Your task to perform on an android device: empty trash in google photos Image 0: 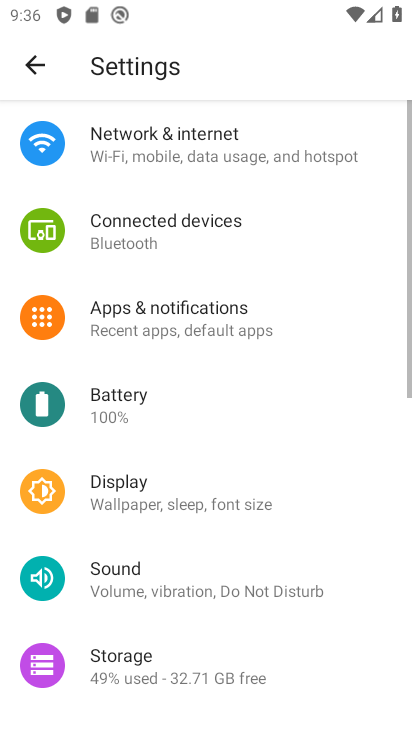
Step 0: press back button
Your task to perform on an android device: empty trash in google photos Image 1: 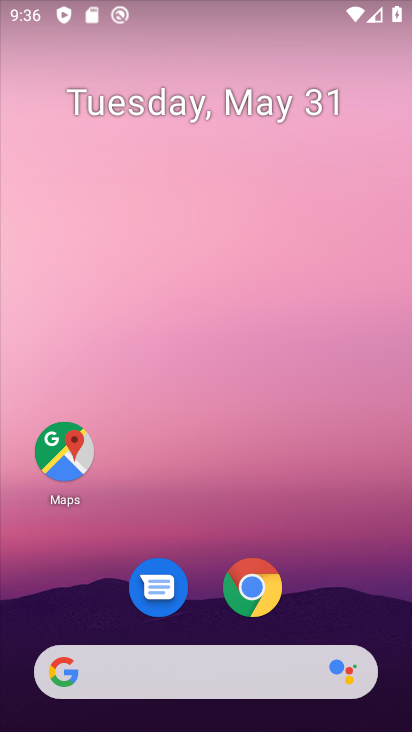
Step 1: drag from (243, 708) to (125, 277)
Your task to perform on an android device: empty trash in google photos Image 2: 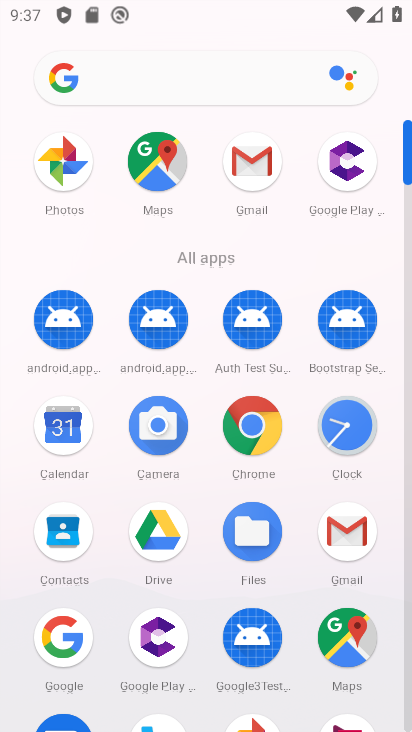
Step 2: drag from (224, 574) to (203, 206)
Your task to perform on an android device: empty trash in google photos Image 3: 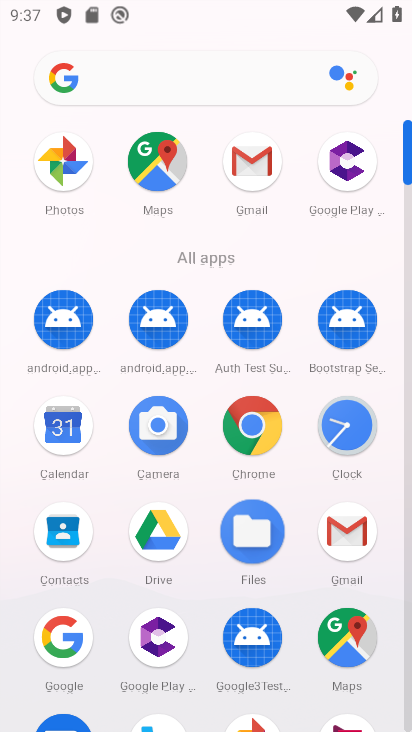
Step 3: drag from (188, 530) to (169, 175)
Your task to perform on an android device: empty trash in google photos Image 4: 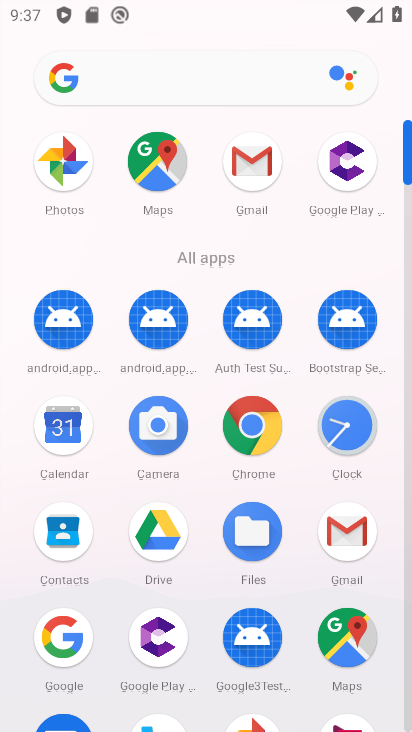
Step 4: drag from (206, 463) to (186, 44)
Your task to perform on an android device: empty trash in google photos Image 5: 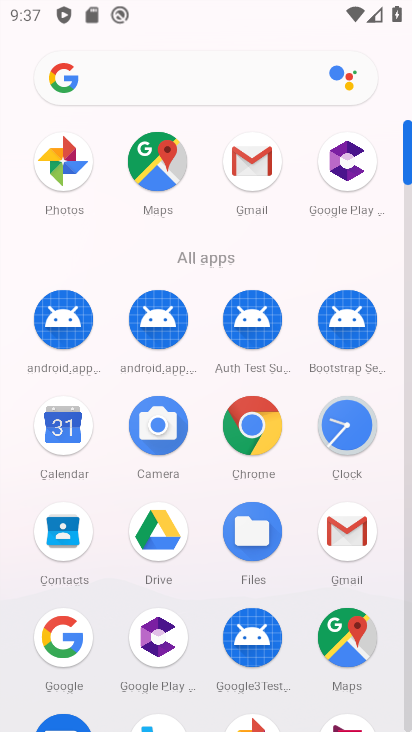
Step 5: drag from (226, 517) to (184, 0)
Your task to perform on an android device: empty trash in google photos Image 6: 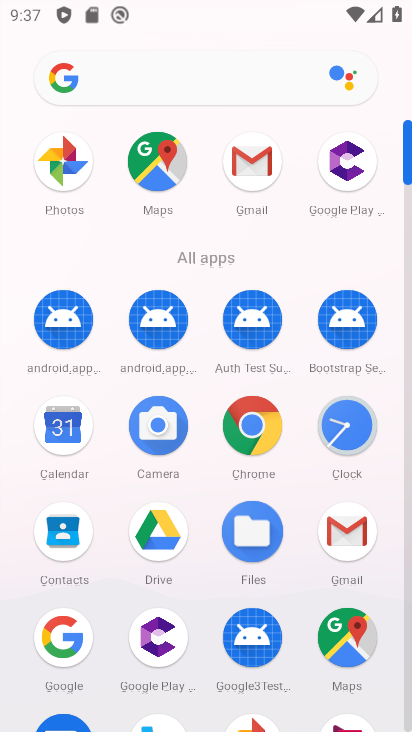
Step 6: drag from (229, 270) to (244, 32)
Your task to perform on an android device: empty trash in google photos Image 7: 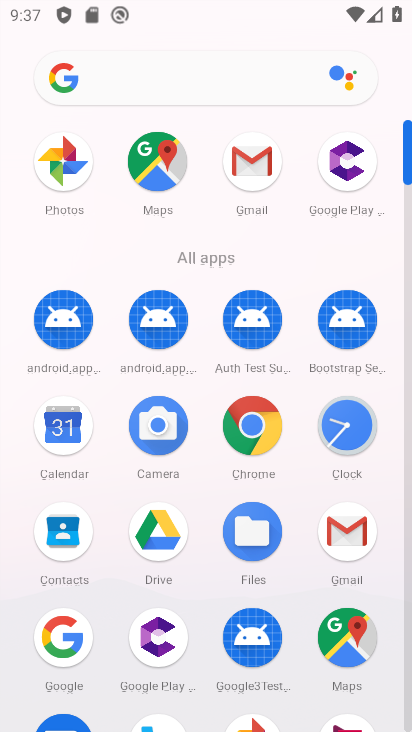
Step 7: drag from (255, 510) to (232, 252)
Your task to perform on an android device: empty trash in google photos Image 8: 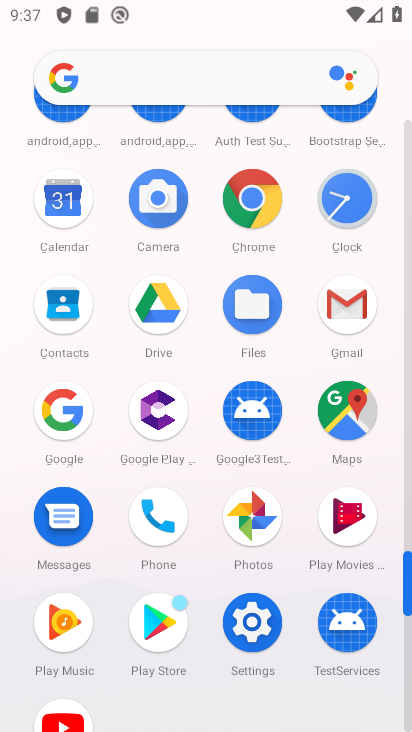
Step 8: click (257, 521)
Your task to perform on an android device: empty trash in google photos Image 9: 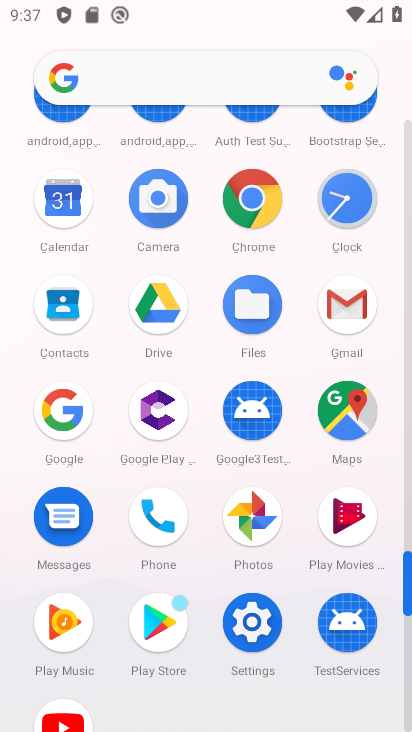
Step 9: click (257, 521)
Your task to perform on an android device: empty trash in google photos Image 10: 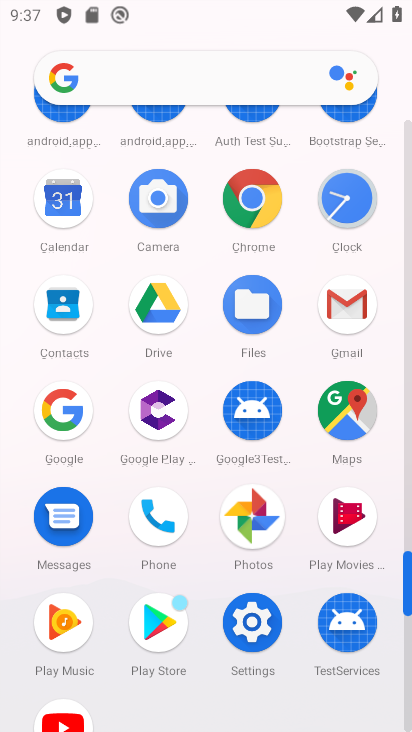
Step 10: click (257, 521)
Your task to perform on an android device: empty trash in google photos Image 11: 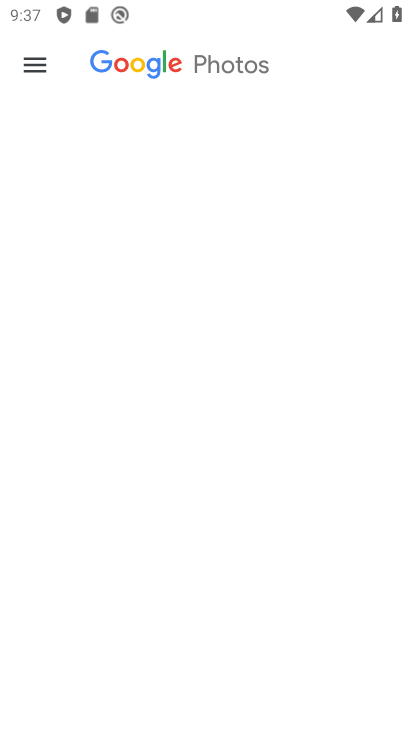
Step 11: click (257, 521)
Your task to perform on an android device: empty trash in google photos Image 12: 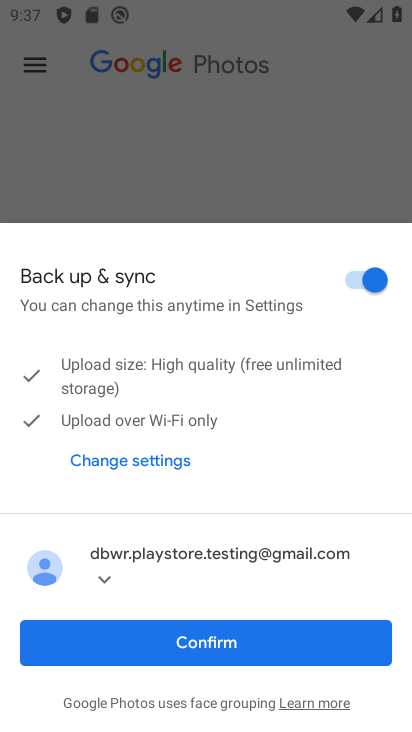
Step 12: click (199, 645)
Your task to perform on an android device: empty trash in google photos Image 13: 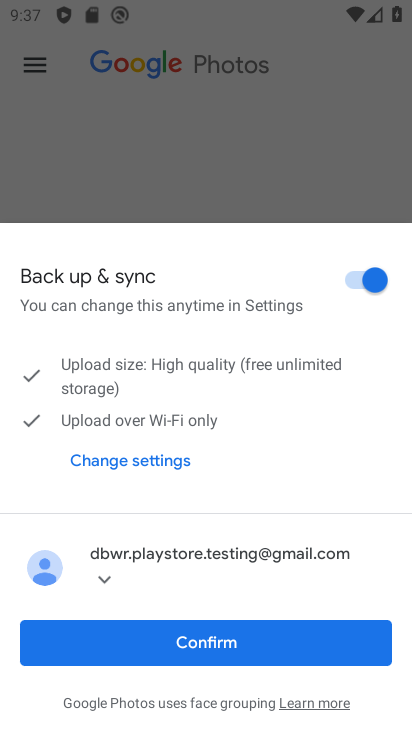
Step 13: click (203, 643)
Your task to perform on an android device: empty trash in google photos Image 14: 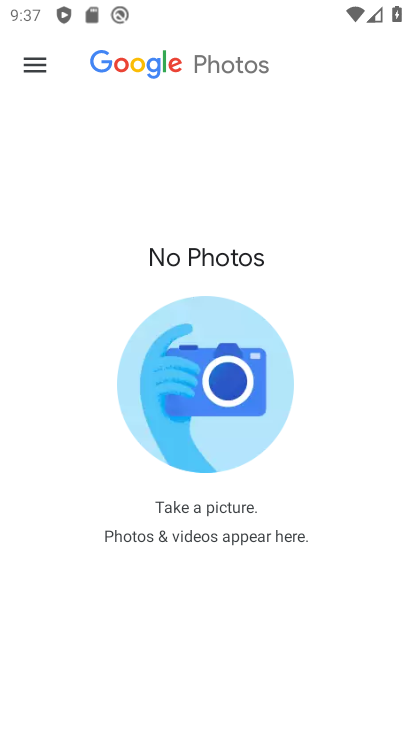
Step 14: click (191, 630)
Your task to perform on an android device: empty trash in google photos Image 15: 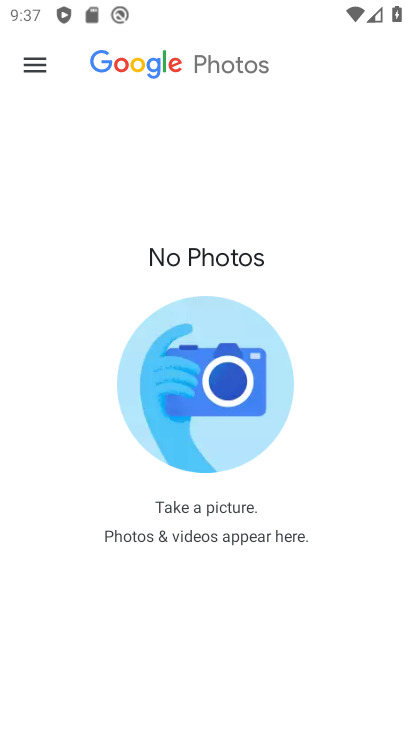
Step 15: click (176, 620)
Your task to perform on an android device: empty trash in google photos Image 16: 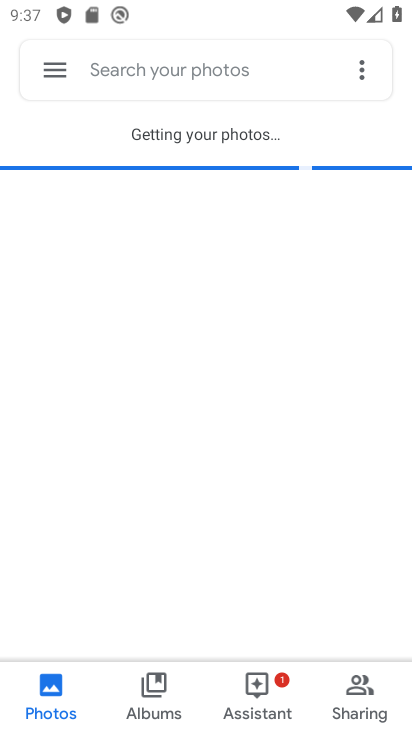
Step 16: press back button
Your task to perform on an android device: empty trash in google photos Image 17: 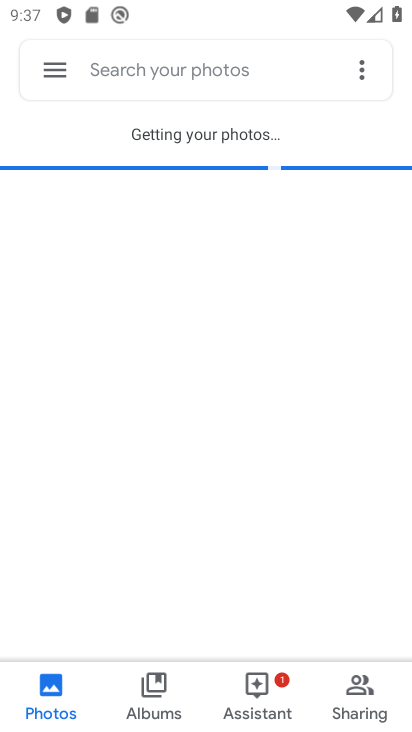
Step 17: press back button
Your task to perform on an android device: empty trash in google photos Image 18: 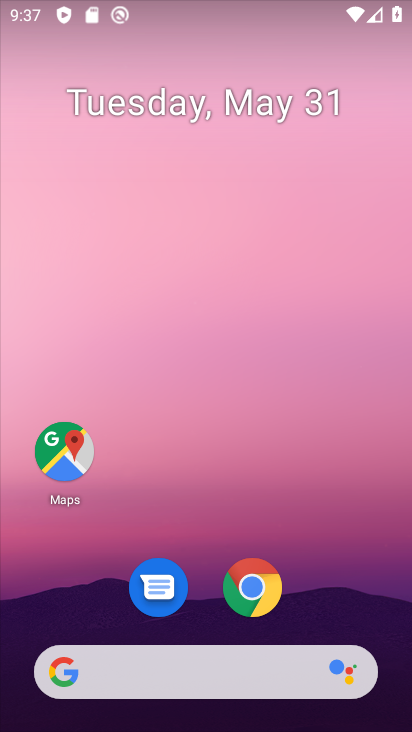
Step 18: drag from (254, 617) to (204, 47)
Your task to perform on an android device: empty trash in google photos Image 19: 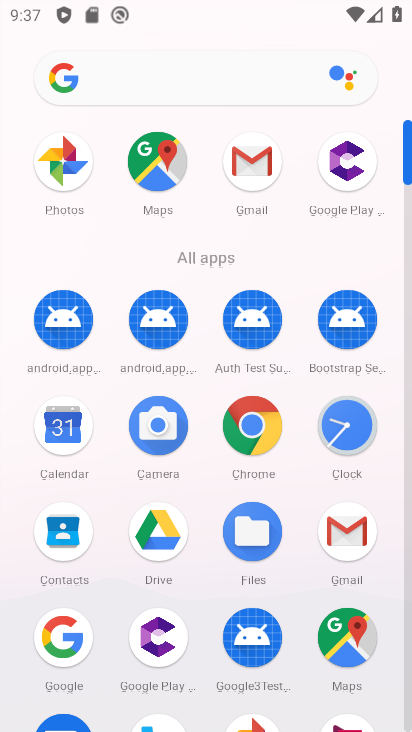
Step 19: drag from (302, 512) to (294, 66)
Your task to perform on an android device: empty trash in google photos Image 20: 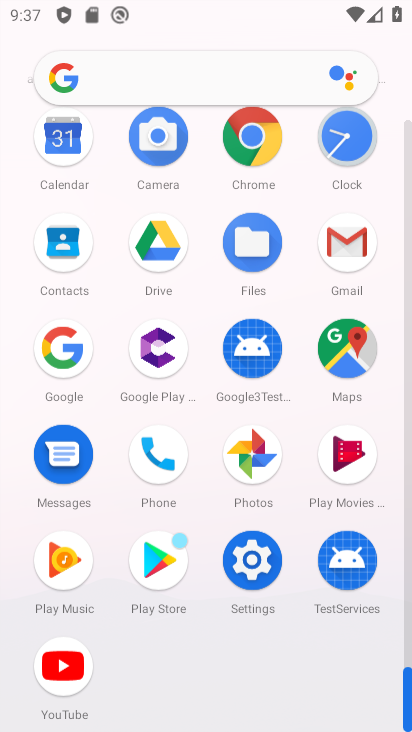
Step 20: drag from (263, 429) to (283, 73)
Your task to perform on an android device: empty trash in google photos Image 21: 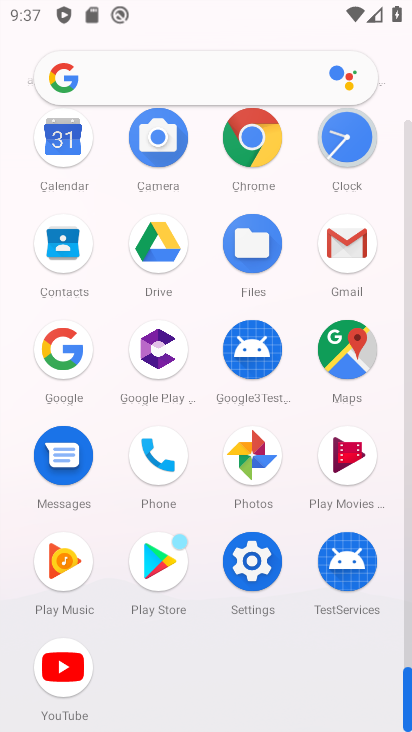
Step 21: click (253, 457)
Your task to perform on an android device: empty trash in google photos Image 22: 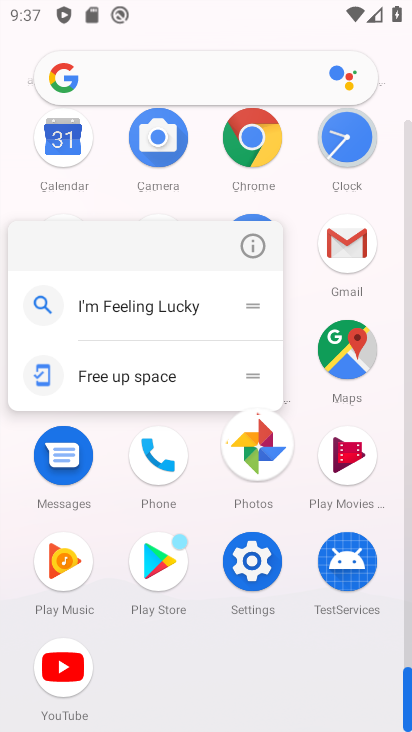
Step 22: click (260, 447)
Your task to perform on an android device: empty trash in google photos Image 23: 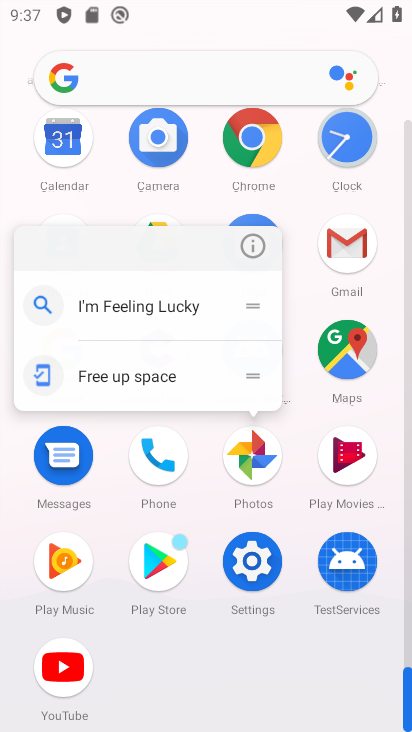
Step 23: click (266, 444)
Your task to perform on an android device: empty trash in google photos Image 24: 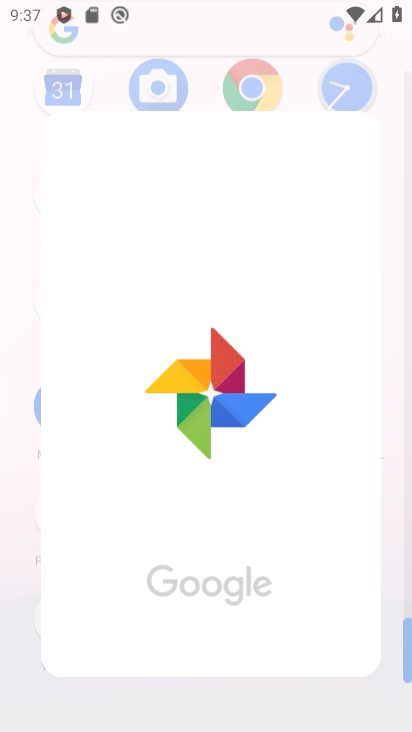
Step 24: click (254, 438)
Your task to perform on an android device: empty trash in google photos Image 25: 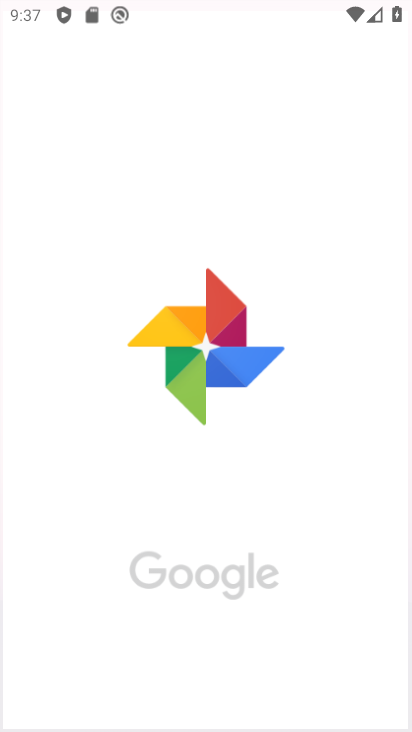
Step 25: click (261, 438)
Your task to perform on an android device: empty trash in google photos Image 26: 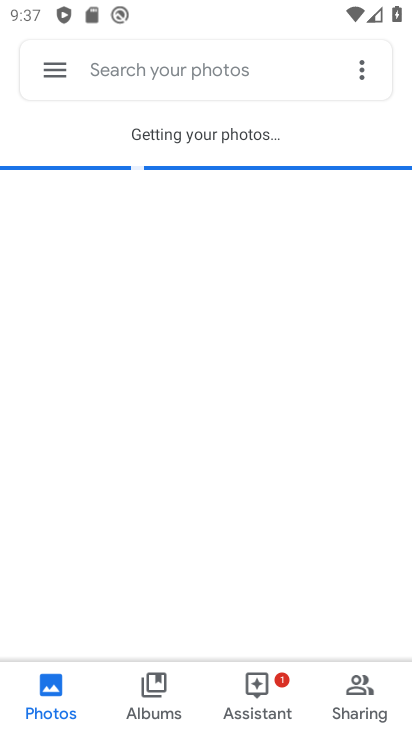
Step 26: press back button
Your task to perform on an android device: empty trash in google photos Image 27: 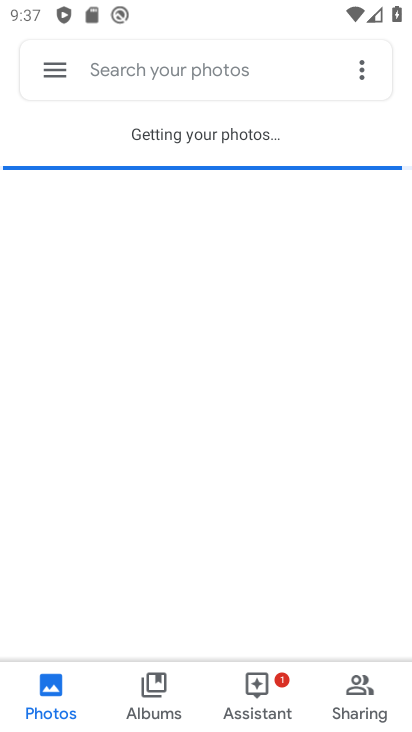
Step 27: press back button
Your task to perform on an android device: empty trash in google photos Image 28: 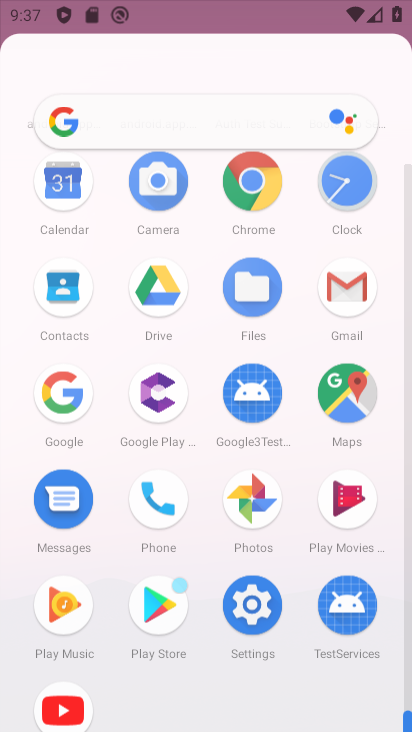
Step 28: press back button
Your task to perform on an android device: empty trash in google photos Image 29: 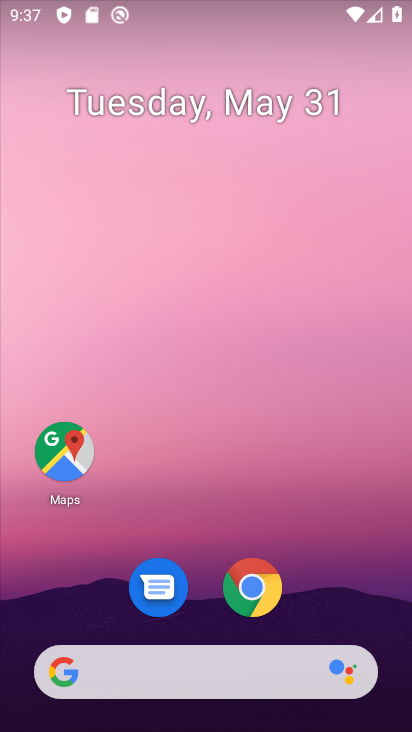
Step 29: drag from (283, 595) to (121, 0)
Your task to perform on an android device: empty trash in google photos Image 30: 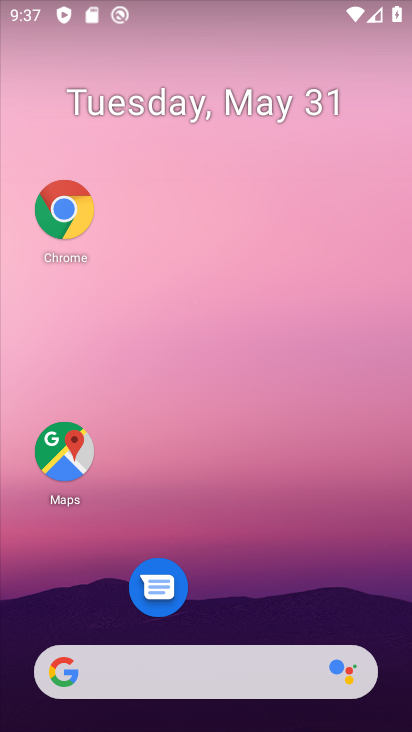
Step 30: drag from (346, 573) to (236, 25)
Your task to perform on an android device: empty trash in google photos Image 31: 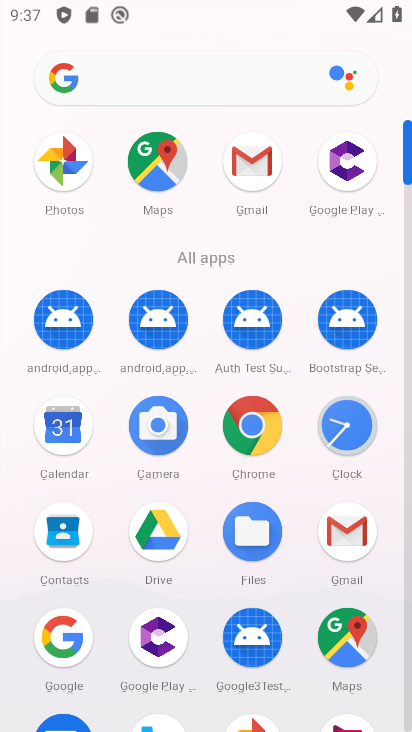
Step 31: drag from (279, 642) to (128, 61)
Your task to perform on an android device: empty trash in google photos Image 32: 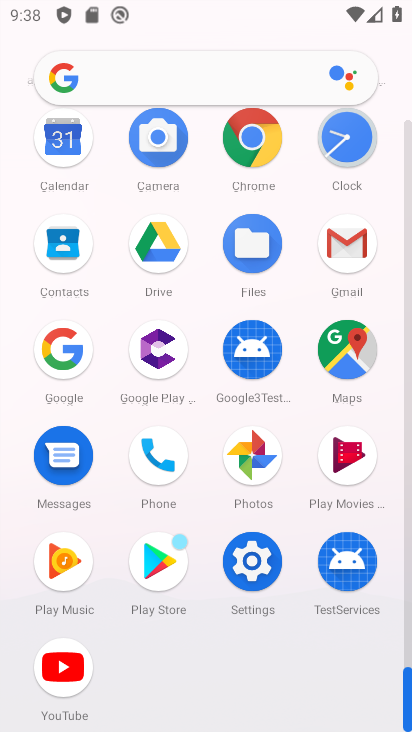
Step 32: click (252, 453)
Your task to perform on an android device: empty trash in google photos Image 33: 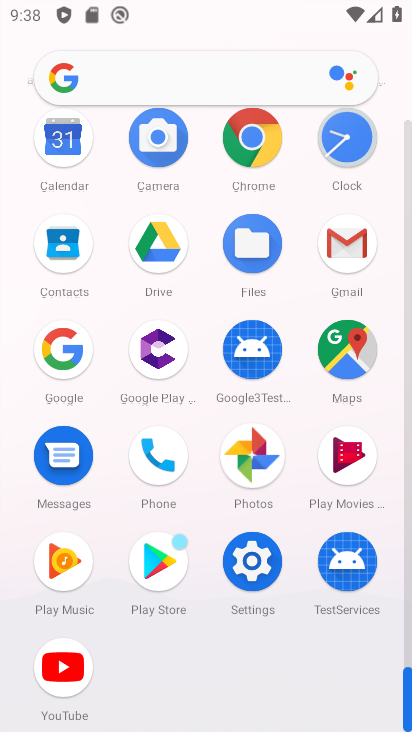
Step 33: click (259, 453)
Your task to perform on an android device: empty trash in google photos Image 34: 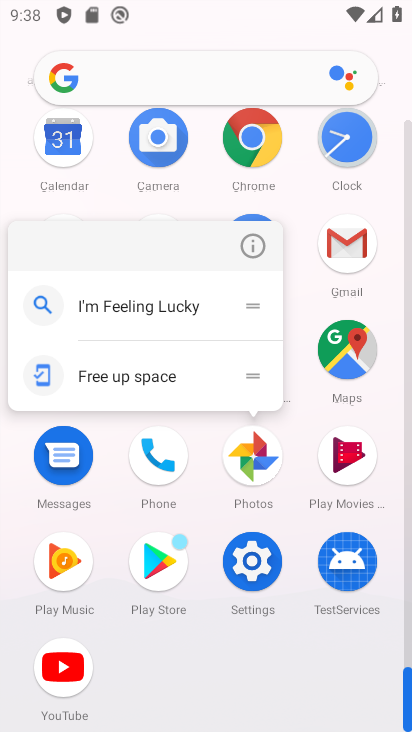
Step 34: click (259, 453)
Your task to perform on an android device: empty trash in google photos Image 35: 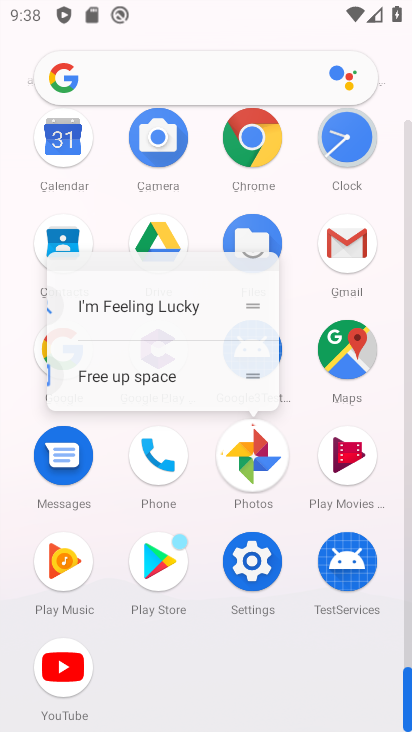
Step 35: click (259, 453)
Your task to perform on an android device: empty trash in google photos Image 36: 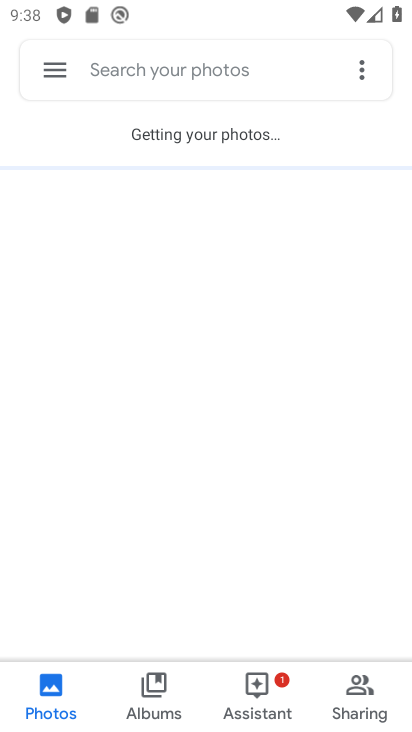
Step 36: press home button
Your task to perform on an android device: empty trash in google photos Image 37: 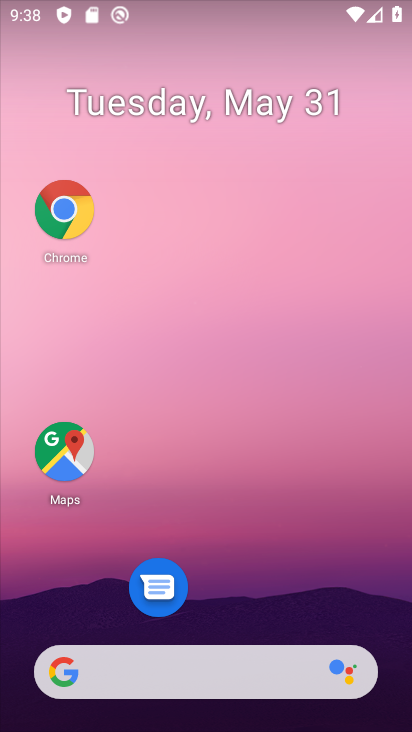
Step 37: drag from (211, 683) to (120, 25)
Your task to perform on an android device: empty trash in google photos Image 38: 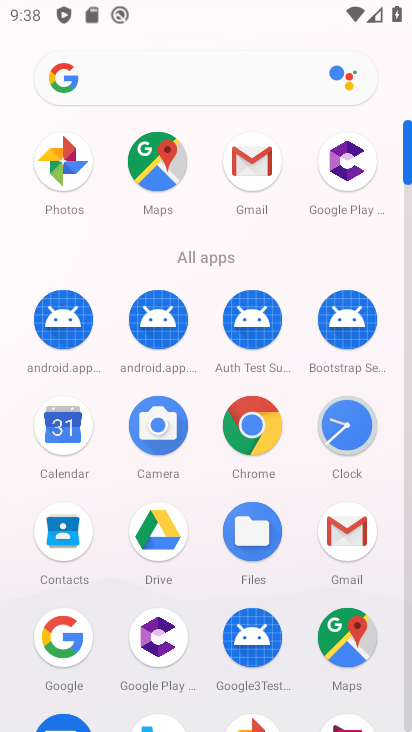
Step 38: drag from (274, 682) to (205, 167)
Your task to perform on an android device: empty trash in google photos Image 39: 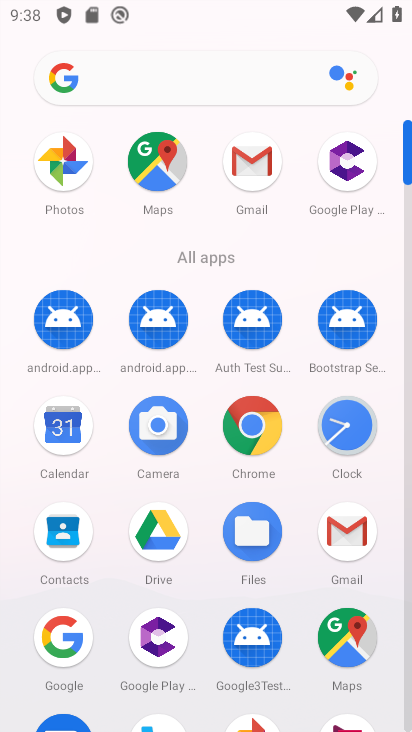
Step 39: drag from (294, 605) to (258, 129)
Your task to perform on an android device: empty trash in google photos Image 40: 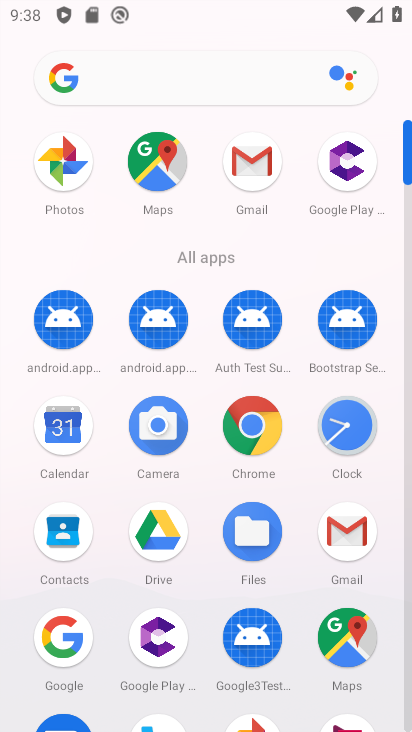
Step 40: drag from (280, 504) to (292, 154)
Your task to perform on an android device: empty trash in google photos Image 41: 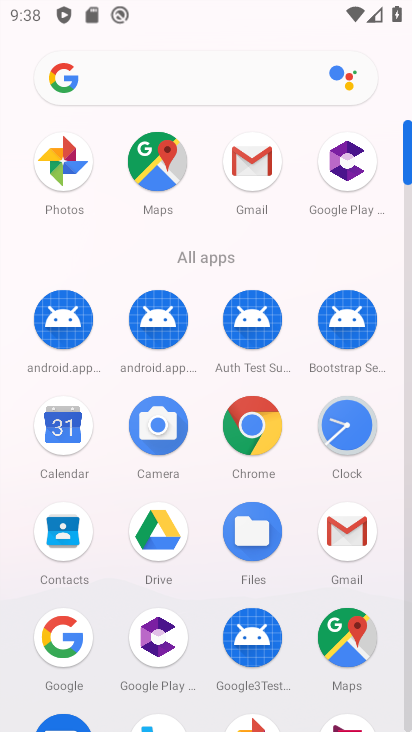
Step 41: click (70, 160)
Your task to perform on an android device: empty trash in google photos Image 42: 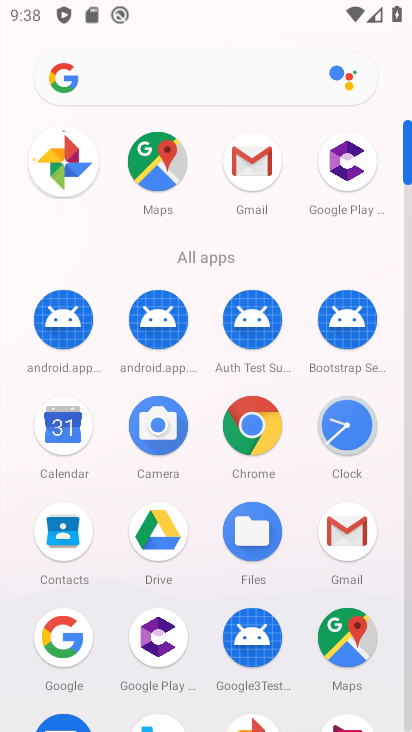
Step 42: click (70, 160)
Your task to perform on an android device: empty trash in google photos Image 43: 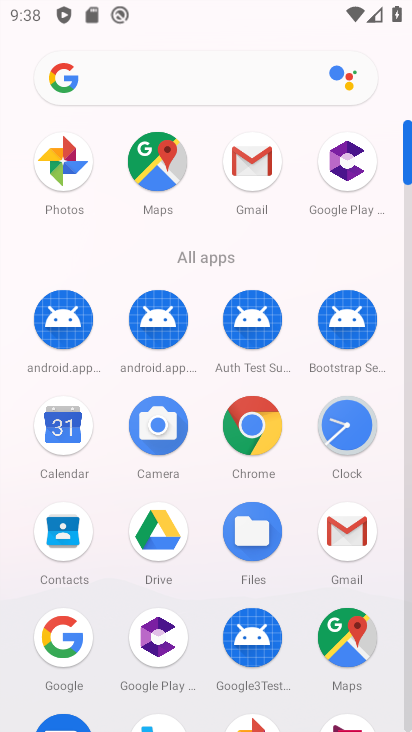
Step 43: click (55, 161)
Your task to perform on an android device: empty trash in google photos Image 44: 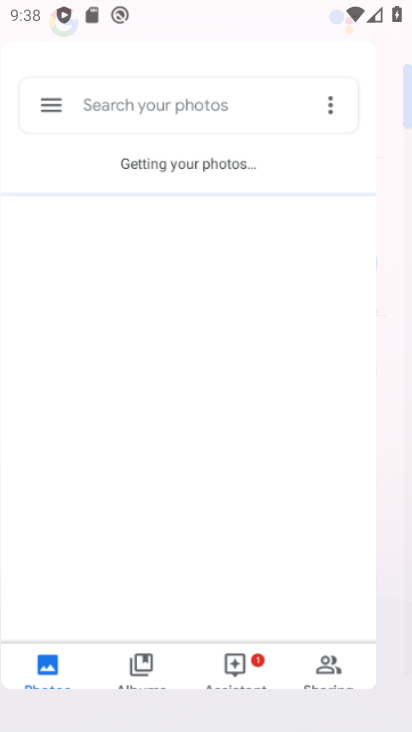
Step 44: click (62, 155)
Your task to perform on an android device: empty trash in google photos Image 45: 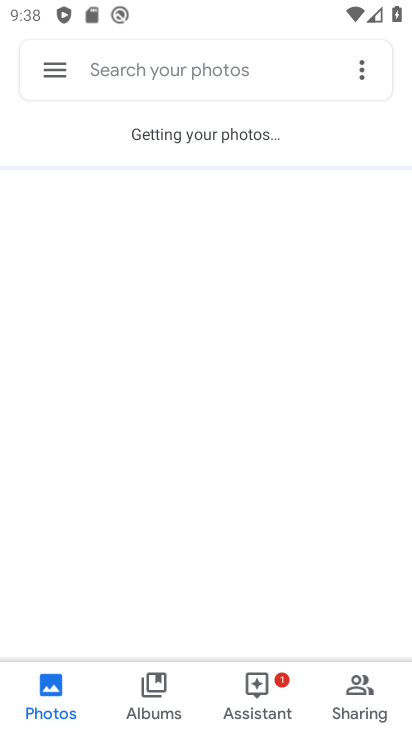
Step 45: drag from (58, 70) to (87, 222)
Your task to perform on an android device: empty trash in google photos Image 46: 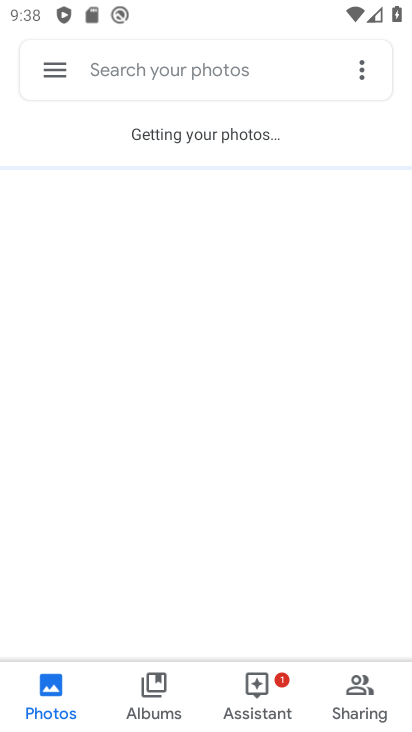
Step 46: drag from (53, 83) to (102, 312)
Your task to perform on an android device: empty trash in google photos Image 47: 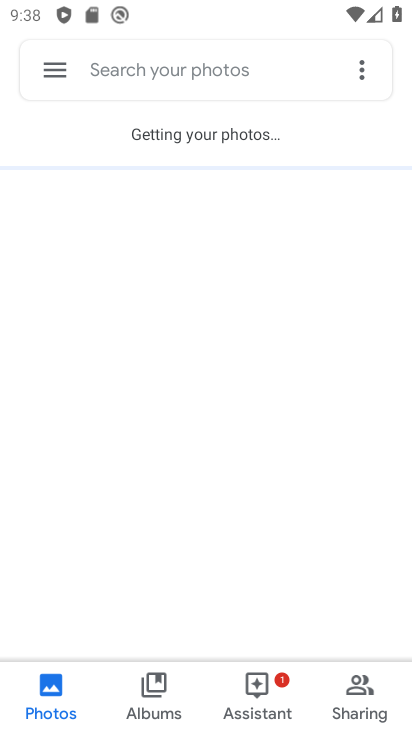
Step 47: drag from (60, 70) to (135, 227)
Your task to perform on an android device: empty trash in google photos Image 48: 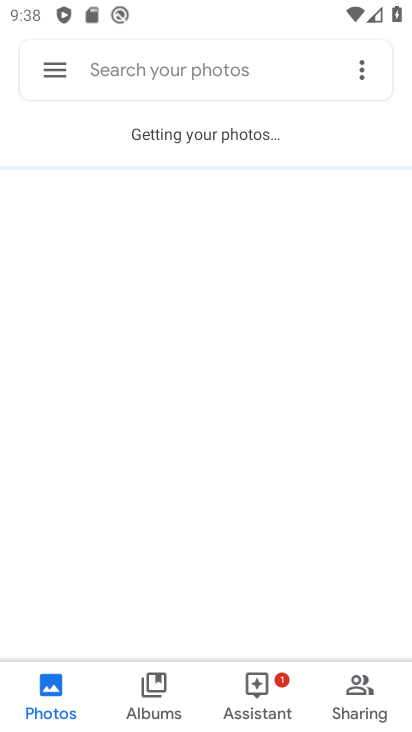
Step 48: click (54, 72)
Your task to perform on an android device: empty trash in google photos Image 49: 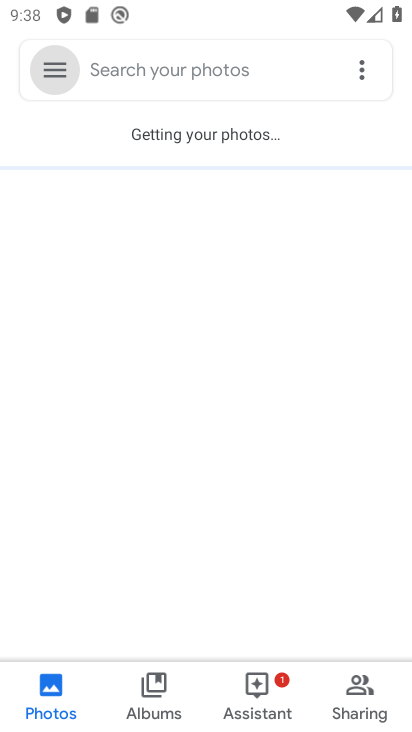
Step 49: drag from (56, 71) to (261, 472)
Your task to perform on an android device: empty trash in google photos Image 50: 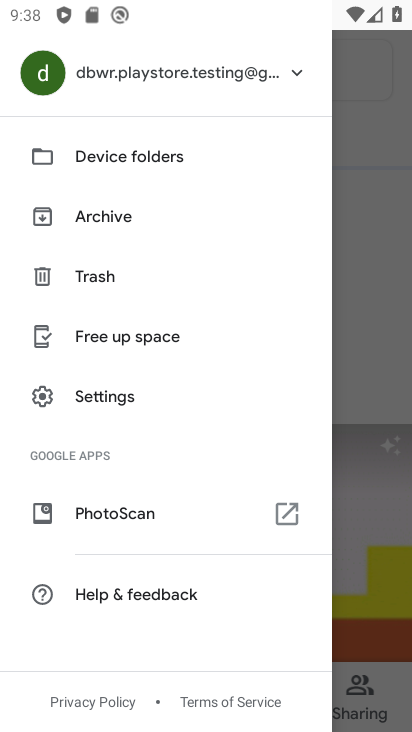
Step 50: click (94, 284)
Your task to perform on an android device: empty trash in google photos Image 51: 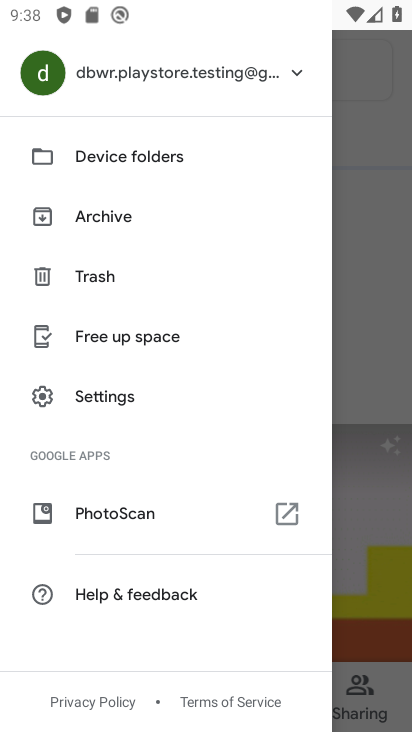
Step 51: click (94, 284)
Your task to perform on an android device: empty trash in google photos Image 52: 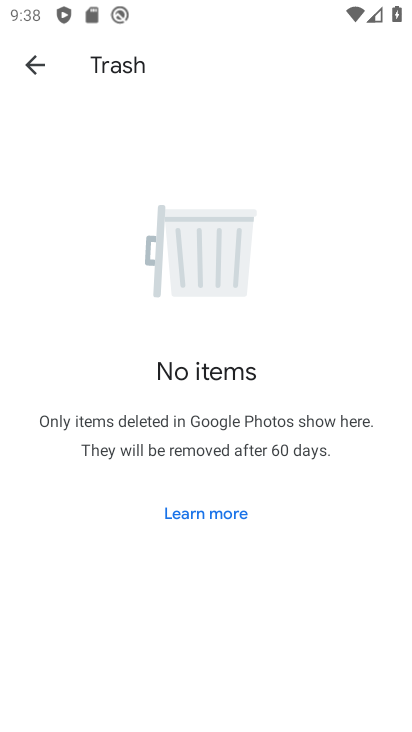
Step 52: task complete